Your task to perform on an android device: change the clock display to digital Image 0: 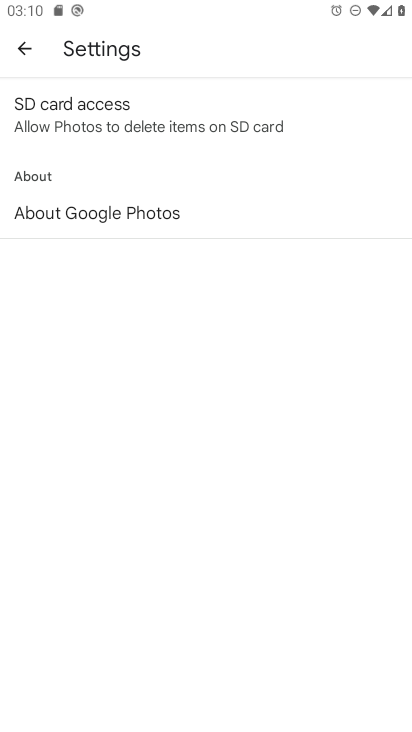
Step 0: press home button
Your task to perform on an android device: change the clock display to digital Image 1: 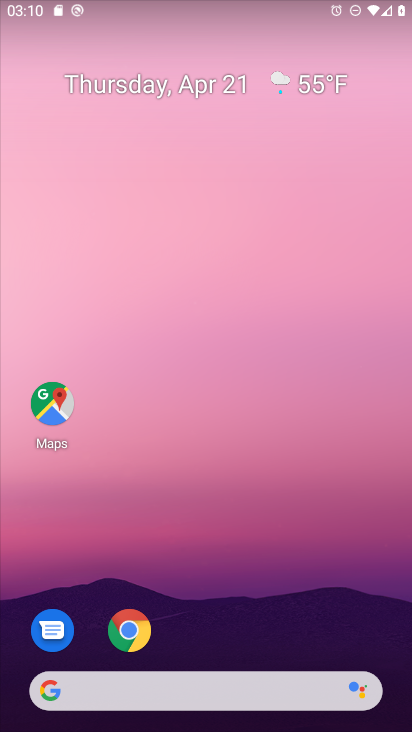
Step 1: drag from (311, 593) to (351, 29)
Your task to perform on an android device: change the clock display to digital Image 2: 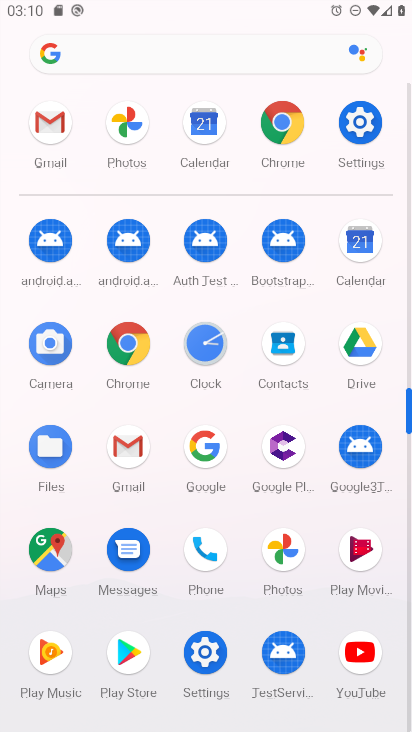
Step 2: click (194, 360)
Your task to perform on an android device: change the clock display to digital Image 3: 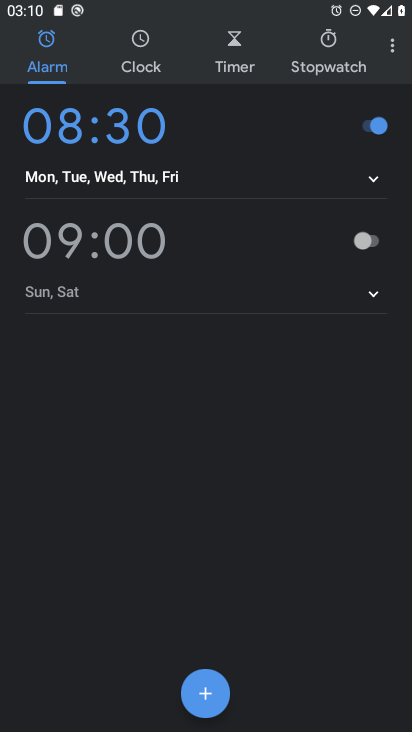
Step 3: click (405, 51)
Your task to perform on an android device: change the clock display to digital Image 4: 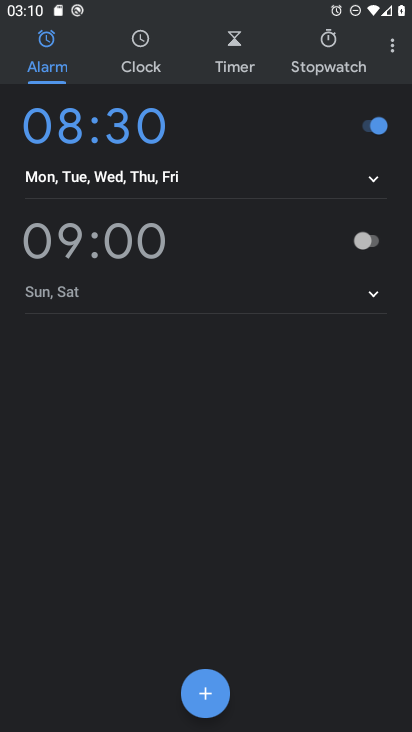
Step 4: click (394, 50)
Your task to perform on an android device: change the clock display to digital Image 5: 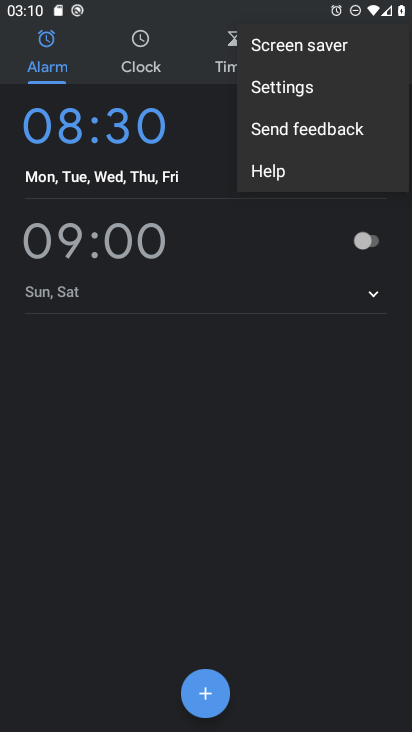
Step 5: click (351, 81)
Your task to perform on an android device: change the clock display to digital Image 6: 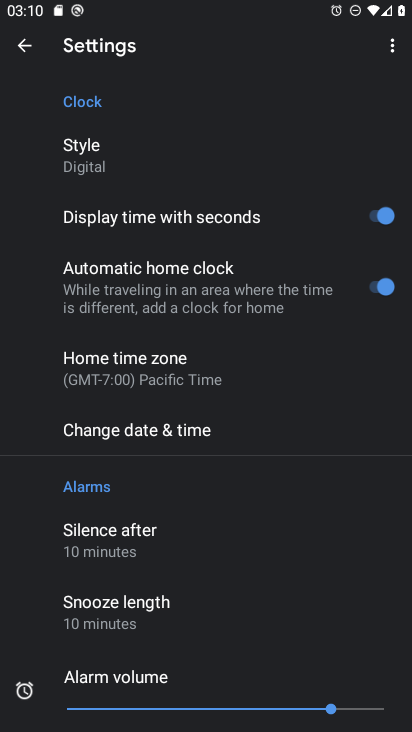
Step 6: task complete